Your task to perform on an android device: Clear the shopping cart on amazon. Add "beats solo 3" to the cart on amazon, then select checkout. Image 0: 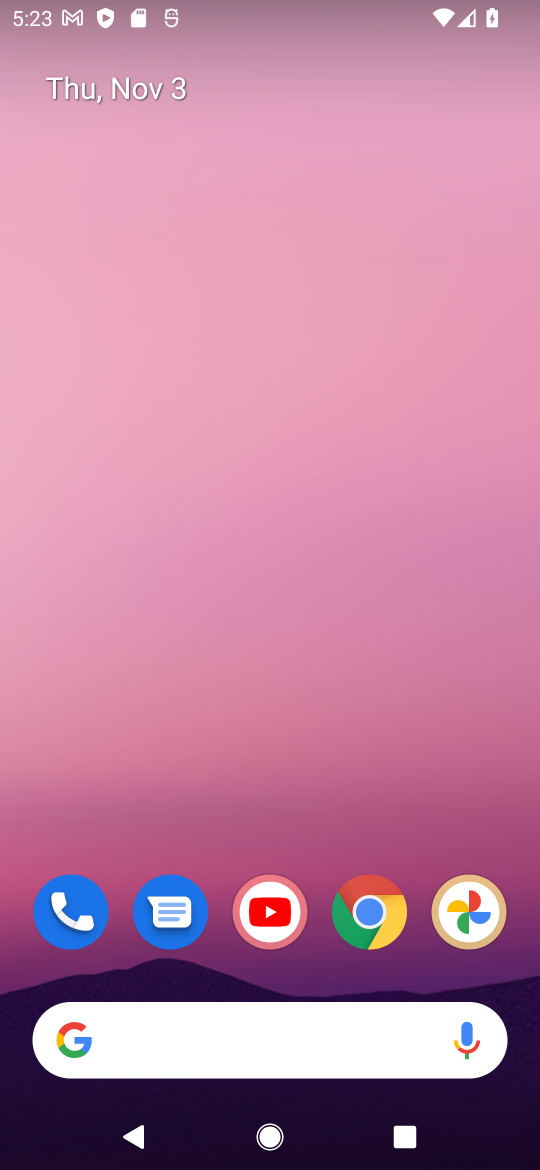
Step 0: click (345, 902)
Your task to perform on an android device: Clear the shopping cart on amazon. Add "beats solo 3" to the cart on amazon, then select checkout. Image 1: 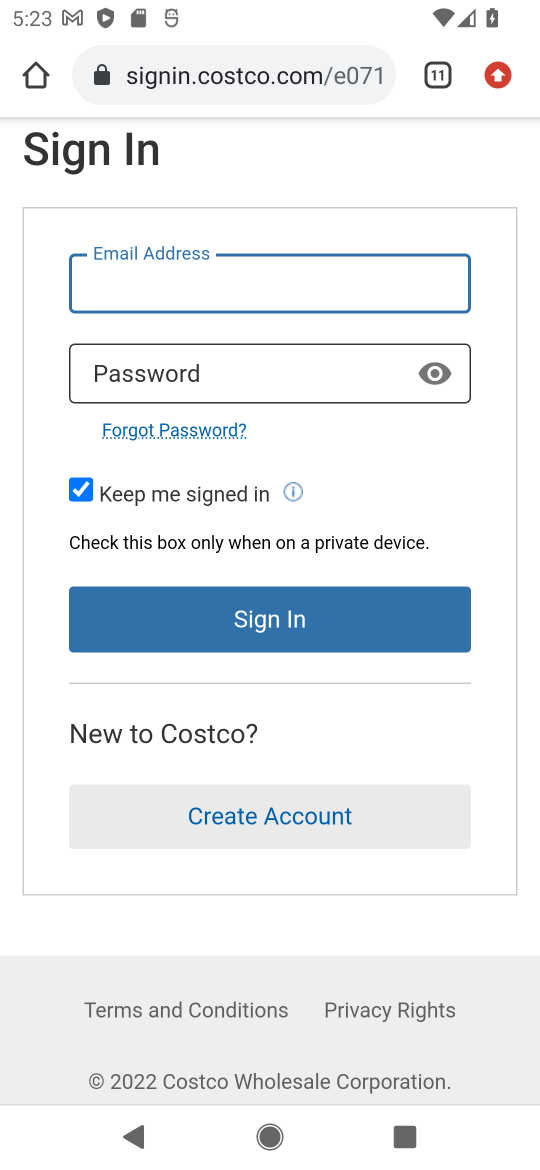
Step 1: click (439, 72)
Your task to perform on an android device: Clear the shopping cart on amazon. Add "beats solo 3" to the cart on amazon, then select checkout. Image 2: 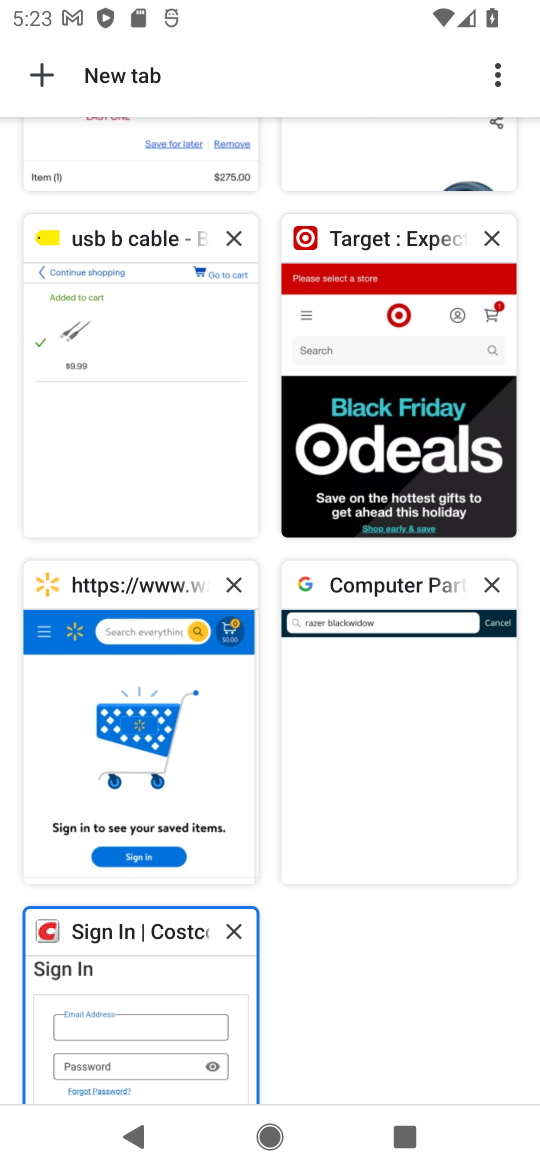
Step 2: click (37, 62)
Your task to perform on an android device: Clear the shopping cart on amazon. Add "beats solo 3" to the cart on amazon, then select checkout. Image 3: 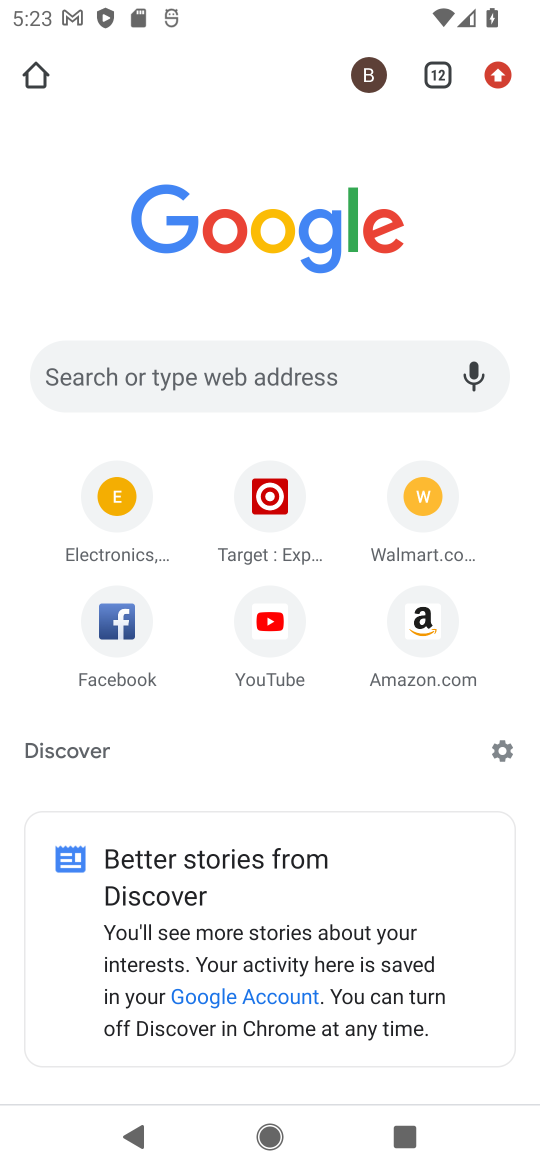
Step 3: click (410, 614)
Your task to perform on an android device: Clear the shopping cart on amazon. Add "beats solo 3" to the cart on amazon, then select checkout. Image 4: 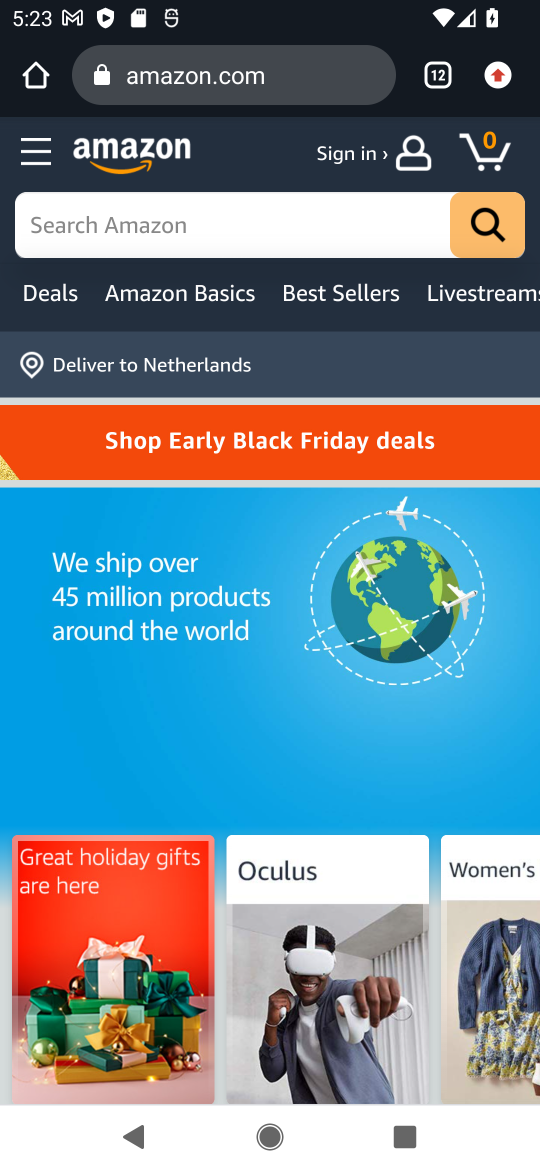
Step 4: click (160, 220)
Your task to perform on an android device: Clear the shopping cart on amazon. Add "beats solo 3" to the cart on amazon, then select checkout. Image 5: 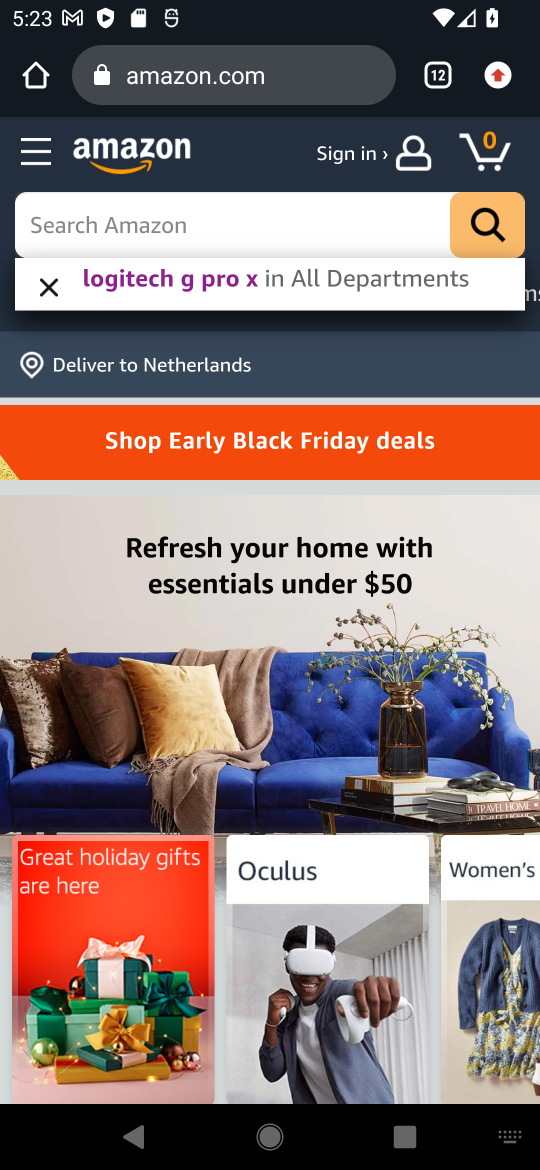
Step 5: type "beats solo 3"
Your task to perform on an android device: Clear the shopping cart on amazon. Add "beats solo 3" to the cart on amazon, then select checkout. Image 6: 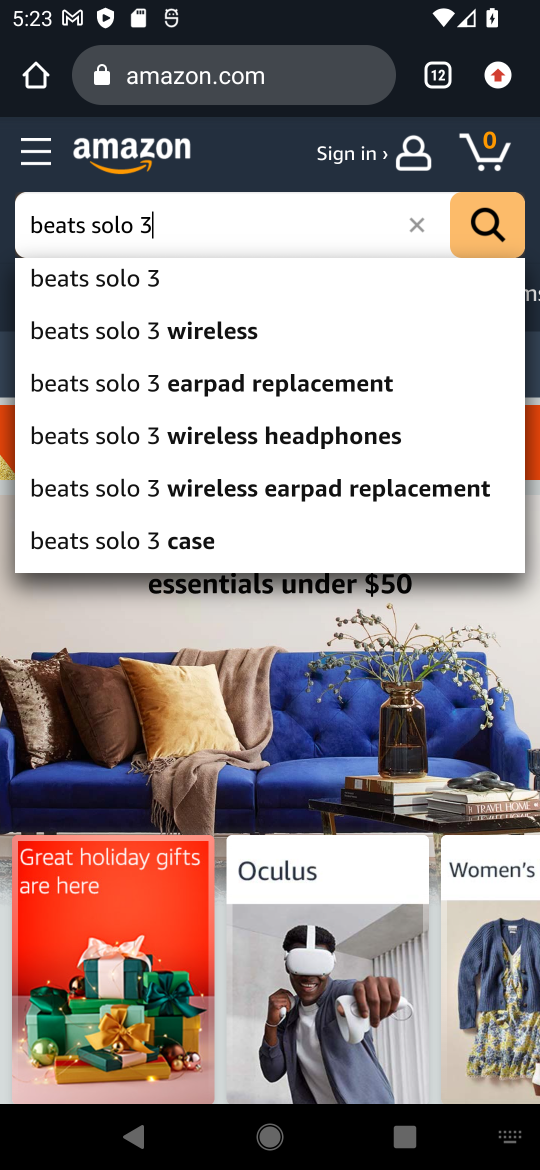
Step 6: click (142, 267)
Your task to perform on an android device: Clear the shopping cart on amazon. Add "beats solo 3" to the cart on amazon, then select checkout. Image 7: 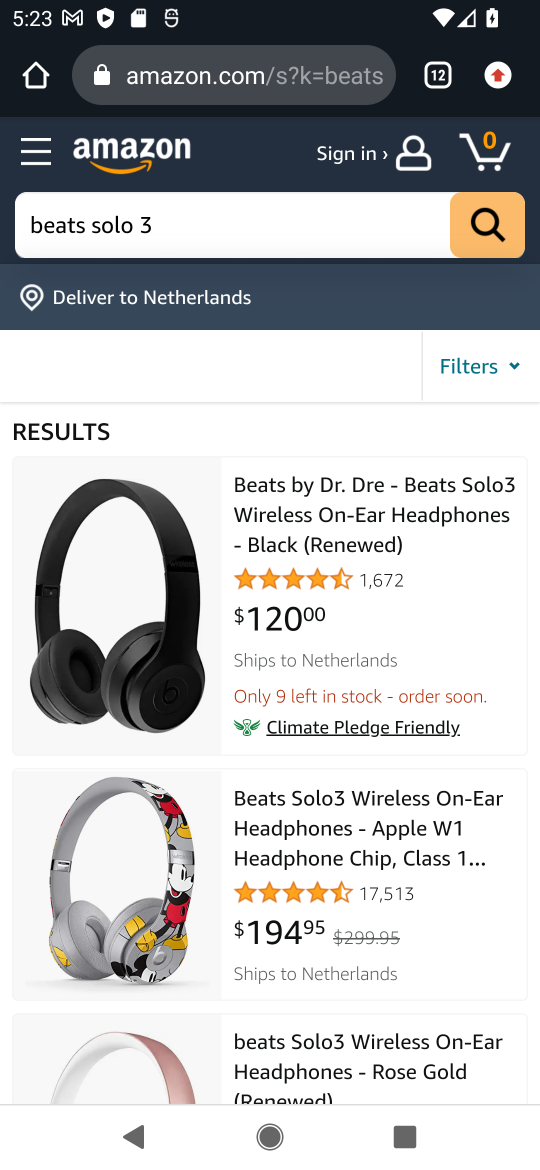
Step 7: click (276, 558)
Your task to perform on an android device: Clear the shopping cart on amazon. Add "beats solo 3" to the cart on amazon, then select checkout. Image 8: 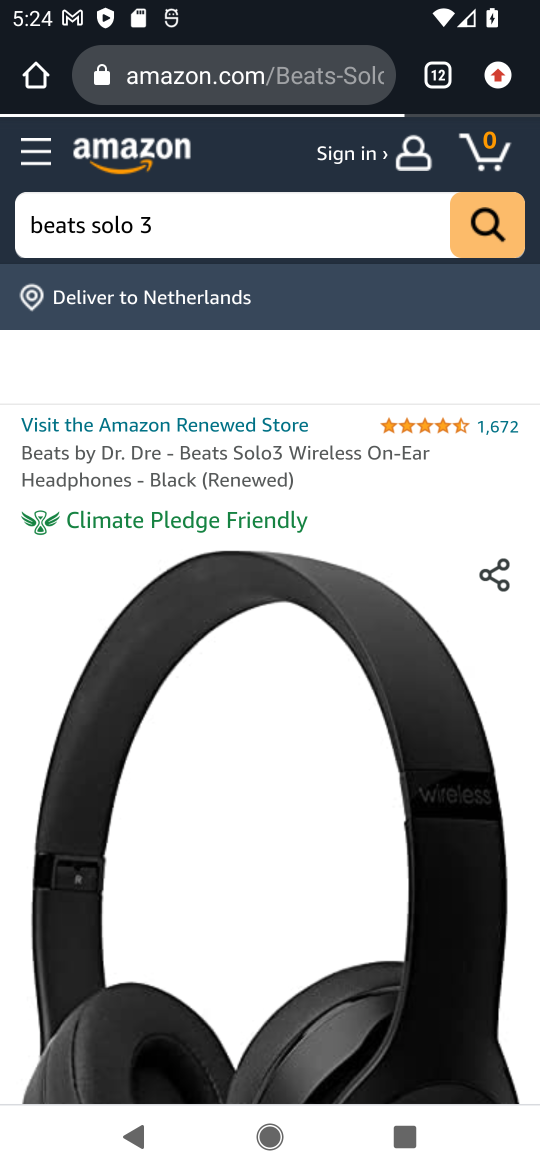
Step 8: drag from (296, 966) to (379, 399)
Your task to perform on an android device: Clear the shopping cart on amazon. Add "beats solo 3" to the cart on amazon, then select checkout. Image 9: 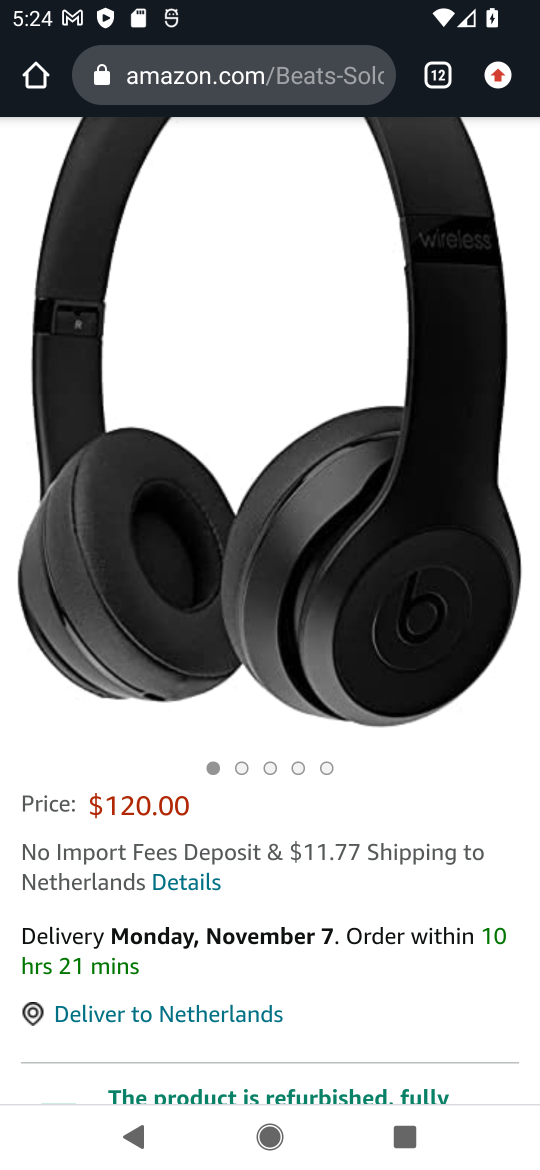
Step 9: drag from (256, 980) to (336, 376)
Your task to perform on an android device: Clear the shopping cart on amazon. Add "beats solo 3" to the cart on amazon, then select checkout. Image 10: 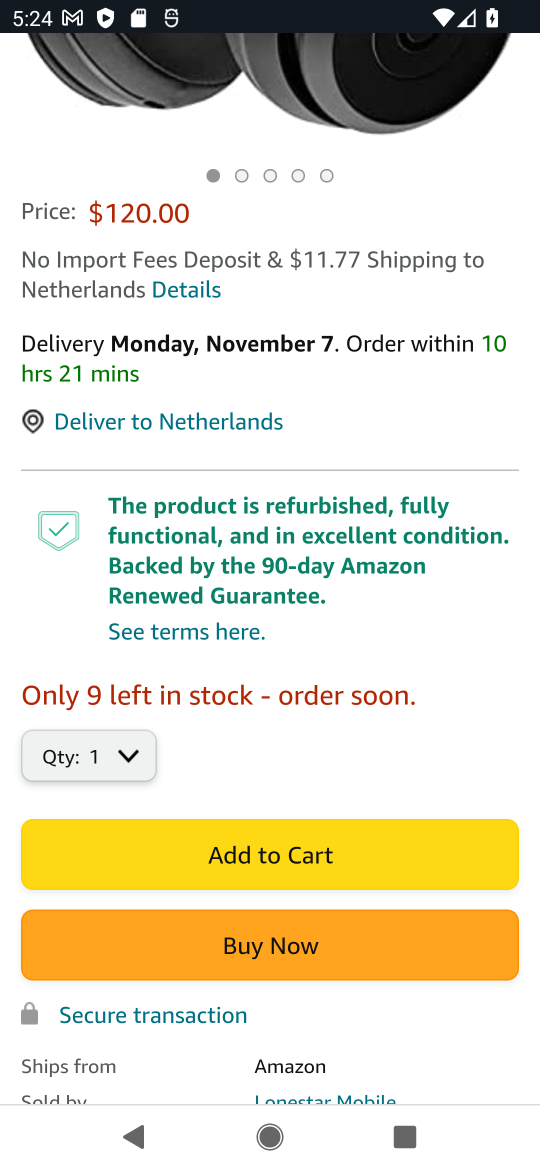
Step 10: click (247, 862)
Your task to perform on an android device: Clear the shopping cart on amazon. Add "beats solo 3" to the cart on amazon, then select checkout. Image 11: 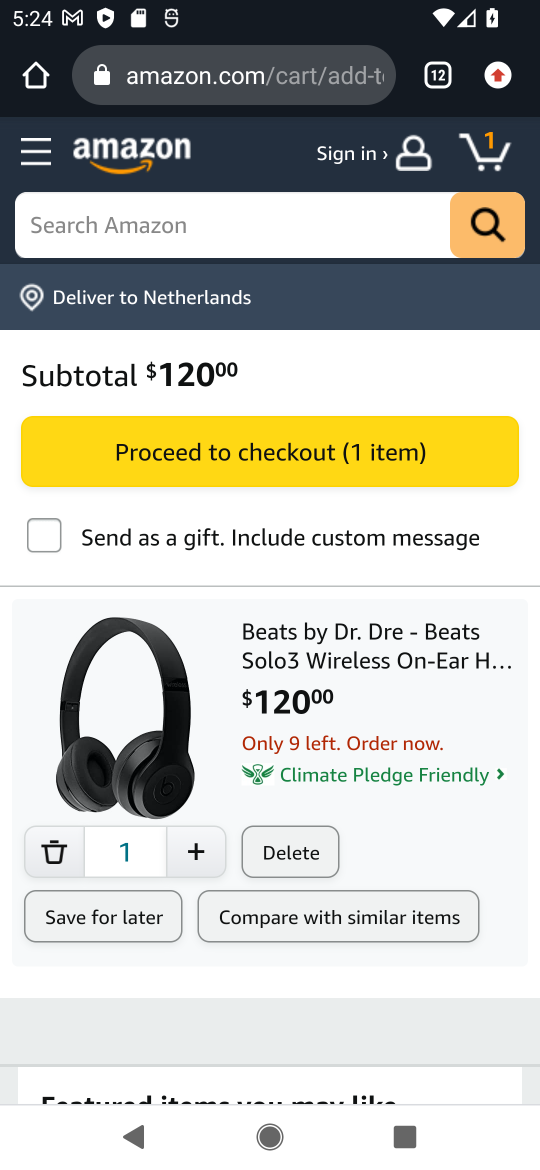
Step 11: click (207, 444)
Your task to perform on an android device: Clear the shopping cart on amazon. Add "beats solo 3" to the cart on amazon, then select checkout. Image 12: 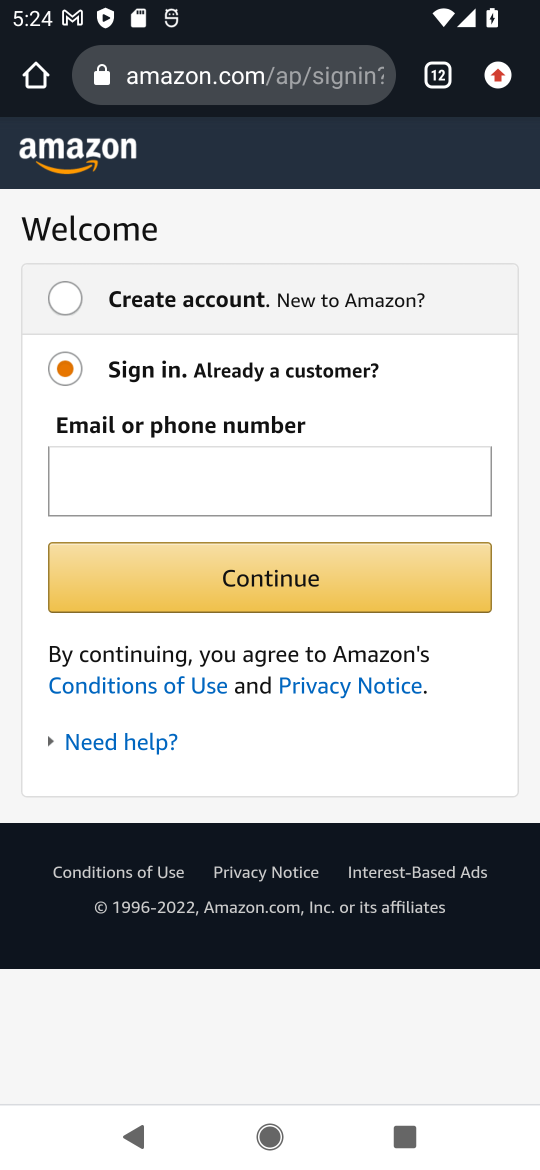
Step 12: task complete